Your task to perform on an android device: Open Chrome and go to settings Image 0: 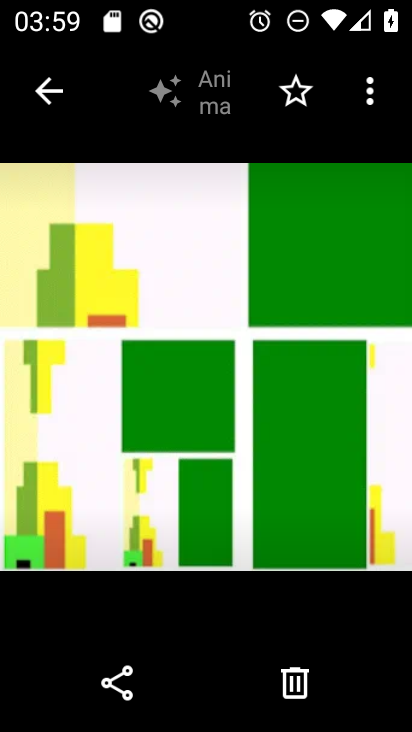
Step 0: press home button
Your task to perform on an android device: Open Chrome and go to settings Image 1: 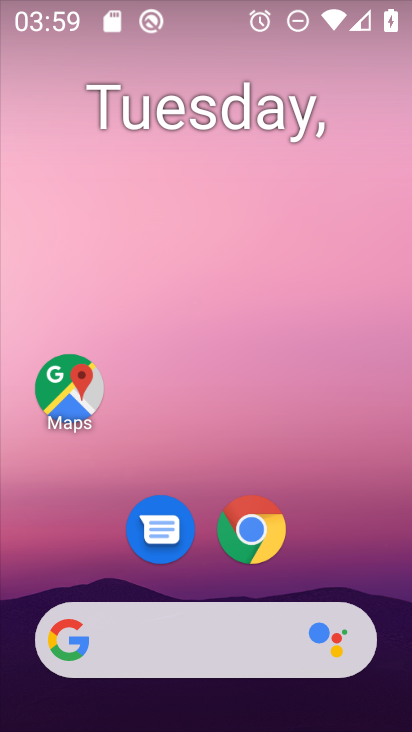
Step 1: drag from (300, 566) to (289, 217)
Your task to perform on an android device: Open Chrome and go to settings Image 2: 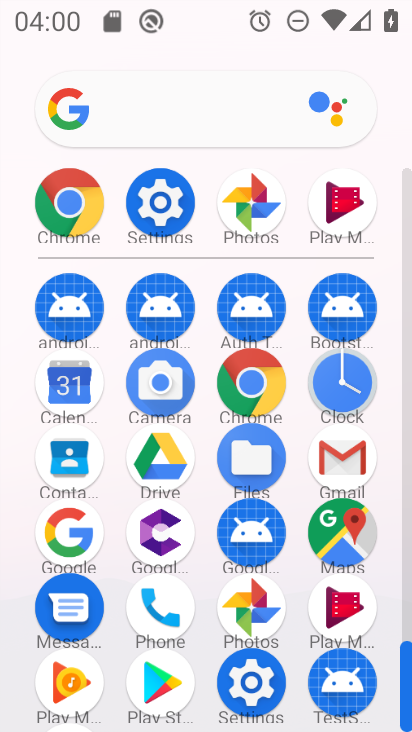
Step 2: click (56, 195)
Your task to perform on an android device: Open Chrome and go to settings Image 3: 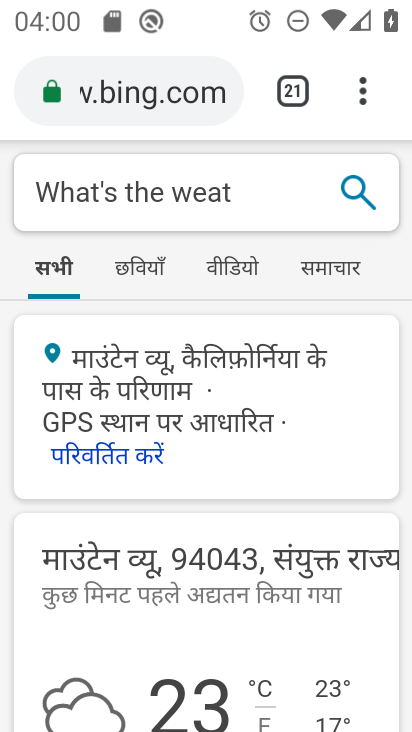
Step 3: click (353, 88)
Your task to perform on an android device: Open Chrome and go to settings Image 4: 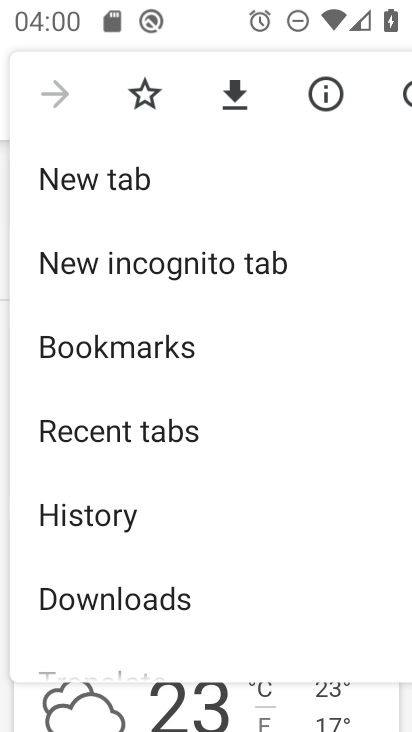
Step 4: drag from (187, 559) to (208, 190)
Your task to perform on an android device: Open Chrome and go to settings Image 5: 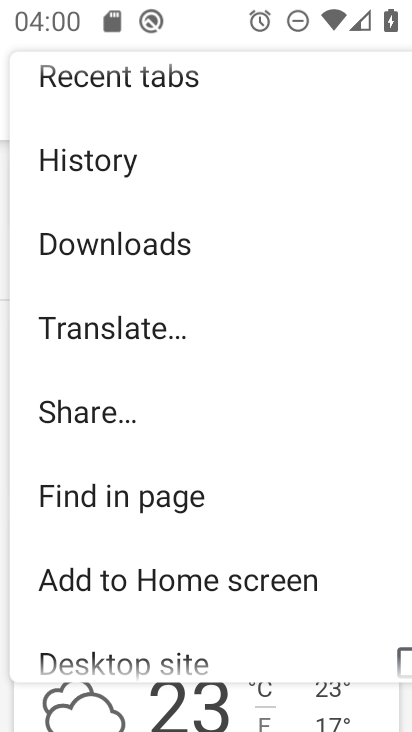
Step 5: drag from (147, 559) to (186, 254)
Your task to perform on an android device: Open Chrome and go to settings Image 6: 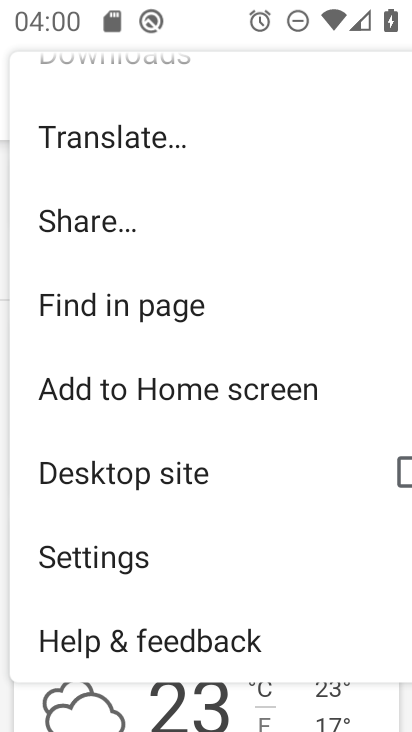
Step 6: click (142, 552)
Your task to perform on an android device: Open Chrome and go to settings Image 7: 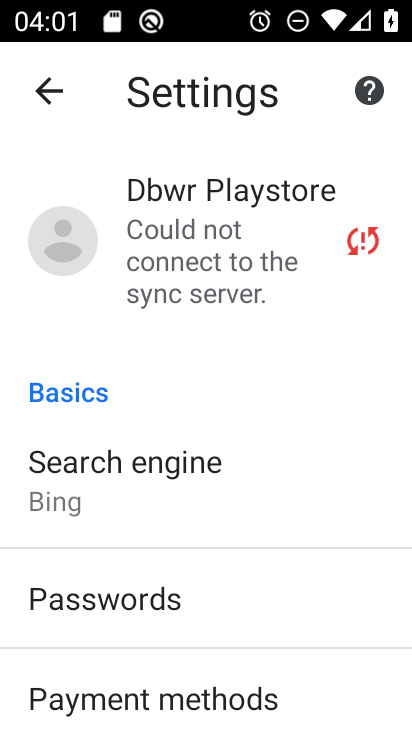
Step 7: task complete